Your task to perform on an android device: Open accessibility settings Image 0: 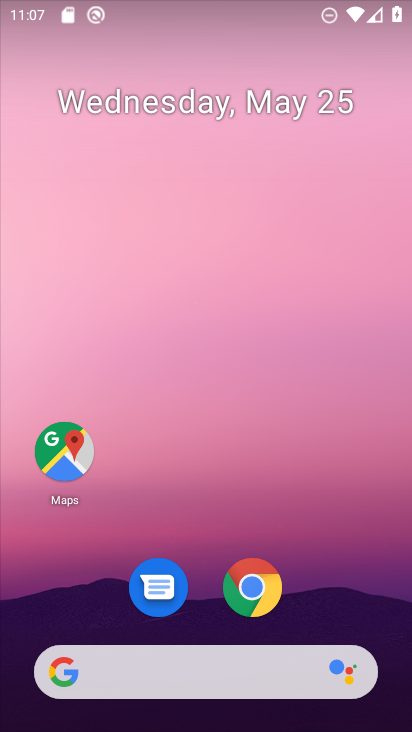
Step 0: drag from (326, 566) to (9, 214)
Your task to perform on an android device: Open accessibility settings Image 1: 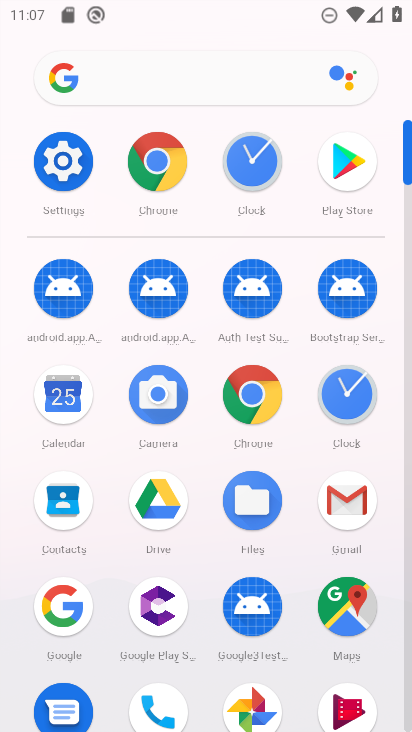
Step 1: drag from (4, 619) to (0, 167)
Your task to perform on an android device: Open accessibility settings Image 2: 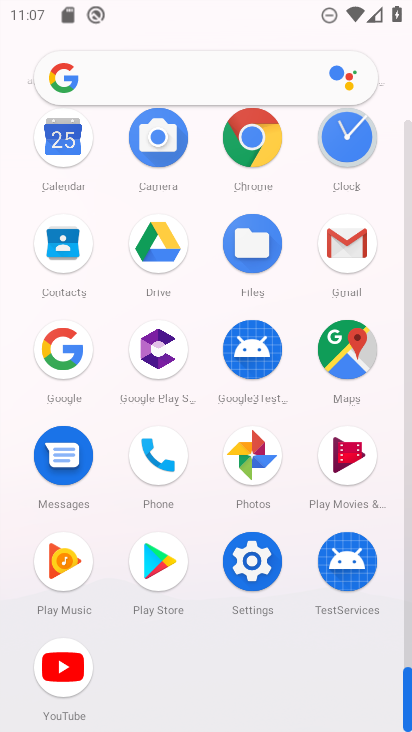
Step 2: click (251, 555)
Your task to perform on an android device: Open accessibility settings Image 3: 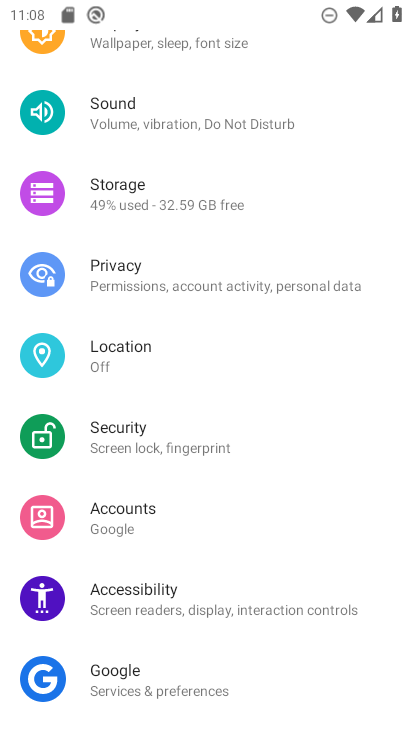
Step 3: click (199, 624)
Your task to perform on an android device: Open accessibility settings Image 4: 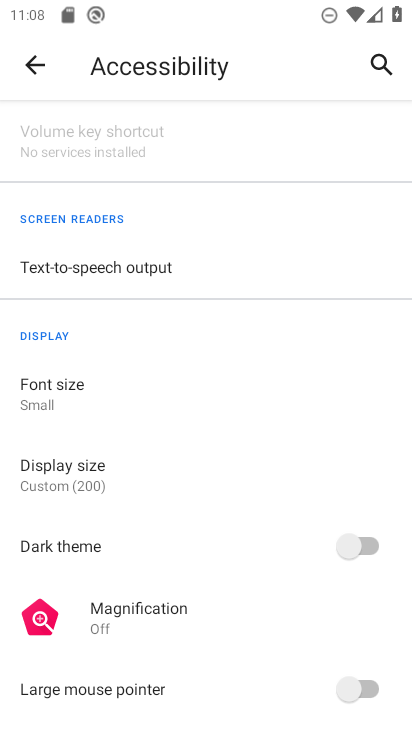
Step 4: task complete